Your task to perform on an android device: change the clock display to show seconds Image 0: 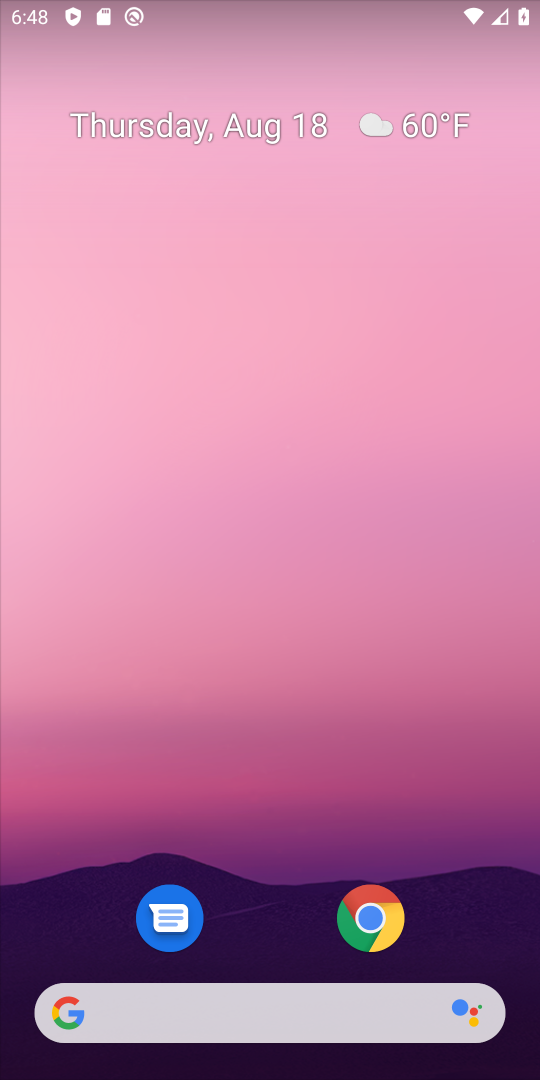
Step 0: press home button
Your task to perform on an android device: change the clock display to show seconds Image 1: 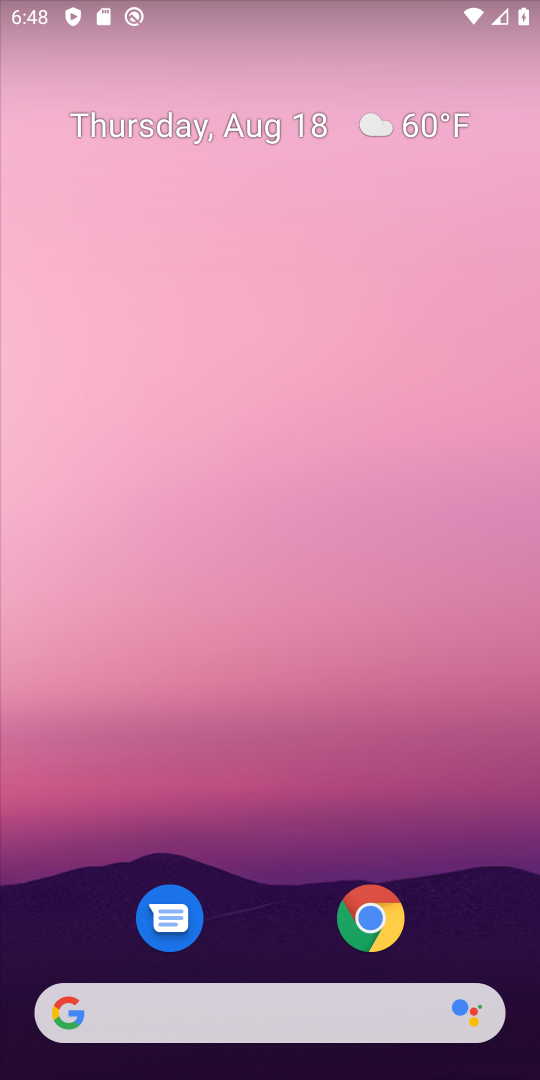
Step 1: drag from (267, 733) to (268, 116)
Your task to perform on an android device: change the clock display to show seconds Image 2: 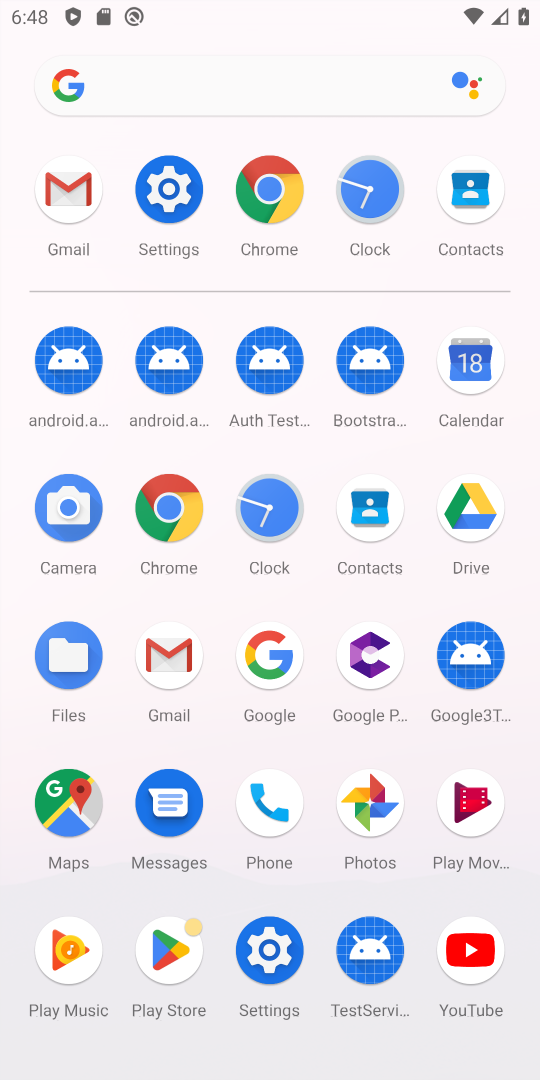
Step 2: click (353, 210)
Your task to perform on an android device: change the clock display to show seconds Image 3: 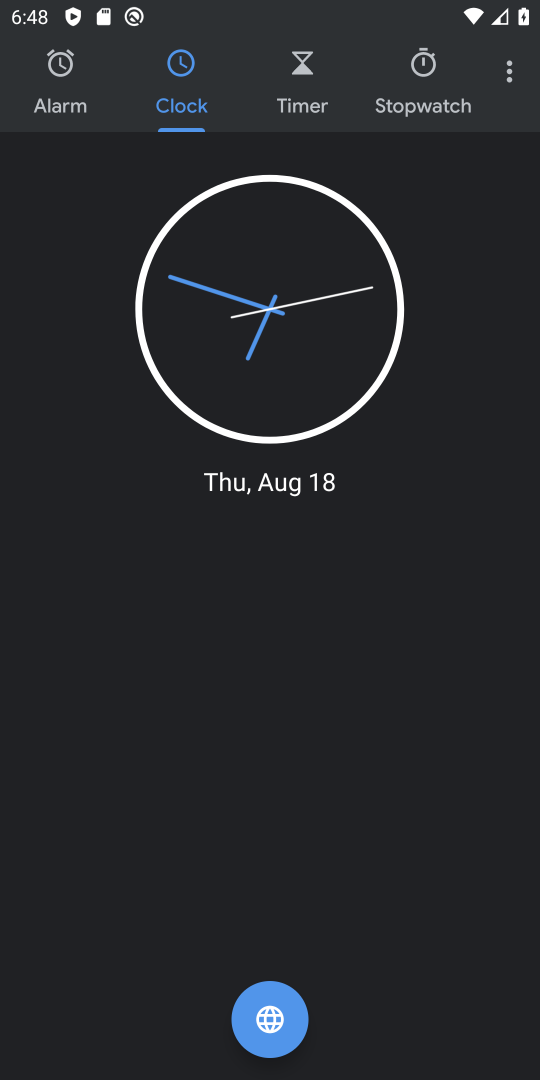
Step 3: click (513, 76)
Your task to perform on an android device: change the clock display to show seconds Image 4: 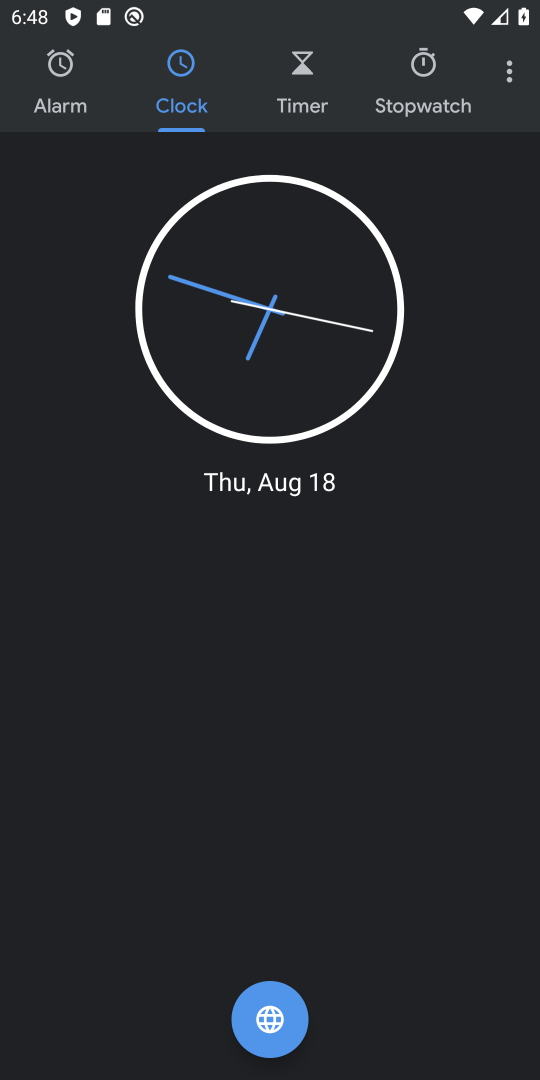
Step 4: click (513, 76)
Your task to perform on an android device: change the clock display to show seconds Image 5: 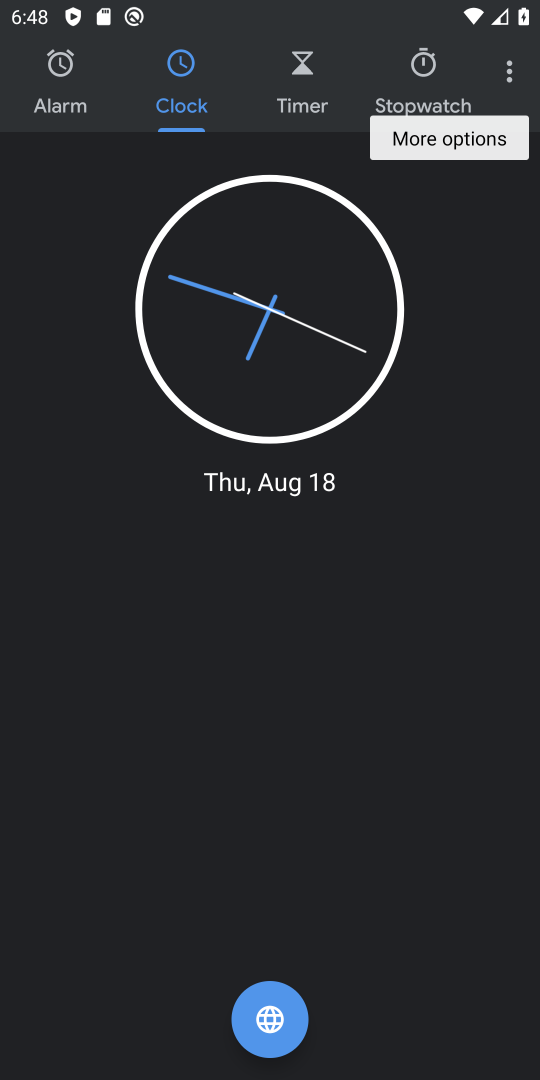
Step 5: click (513, 76)
Your task to perform on an android device: change the clock display to show seconds Image 6: 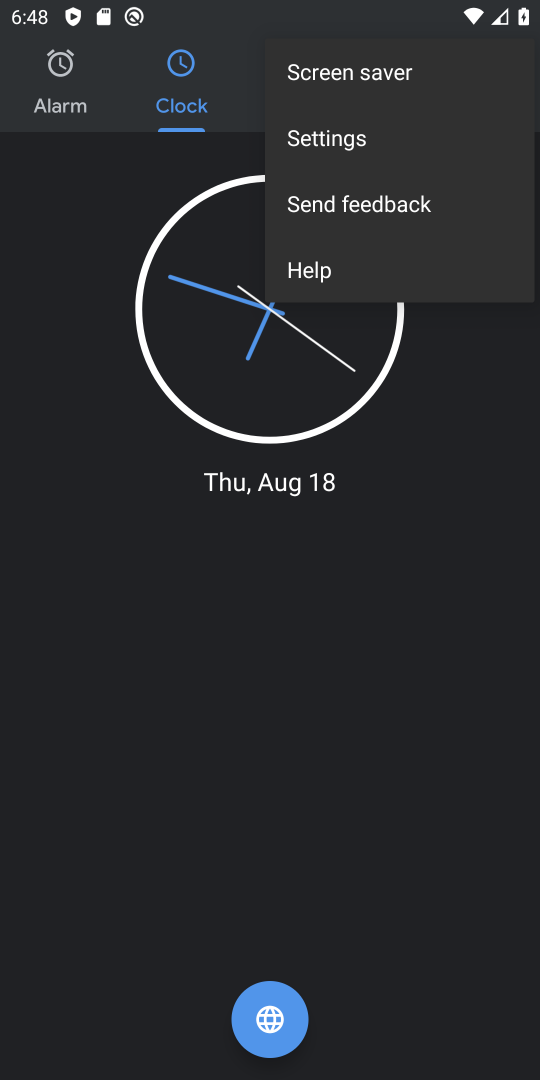
Step 6: click (322, 149)
Your task to perform on an android device: change the clock display to show seconds Image 7: 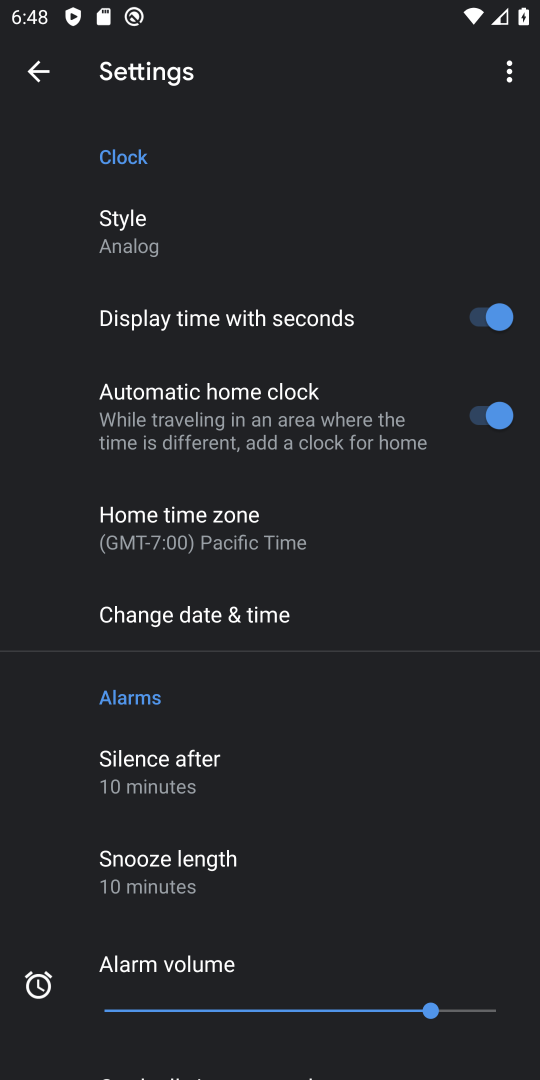
Step 7: task complete